Your task to perform on an android device: turn off smart reply in the gmail app Image 0: 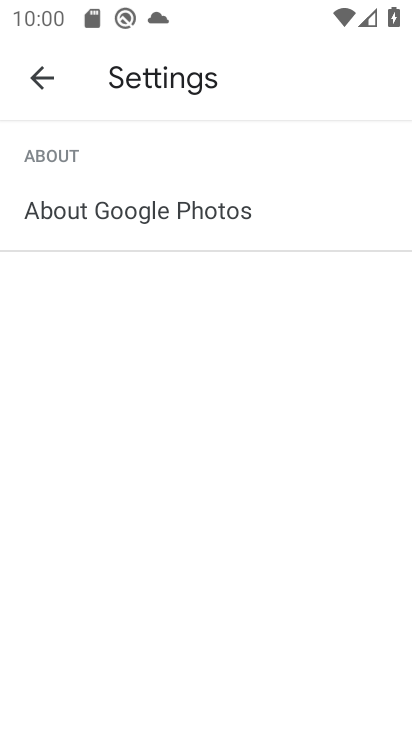
Step 0: press home button
Your task to perform on an android device: turn off smart reply in the gmail app Image 1: 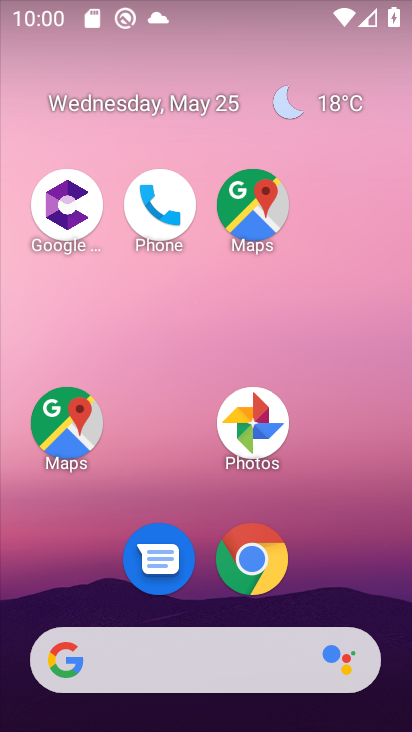
Step 1: drag from (328, 579) to (298, 36)
Your task to perform on an android device: turn off smart reply in the gmail app Image 2: 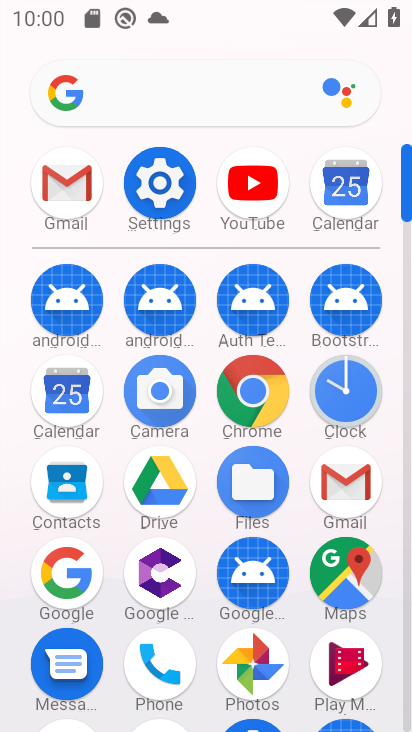
Step 2: click (298, 36)
Your task to perform on an android device: turn off smart reply in the gmail app Image 3: 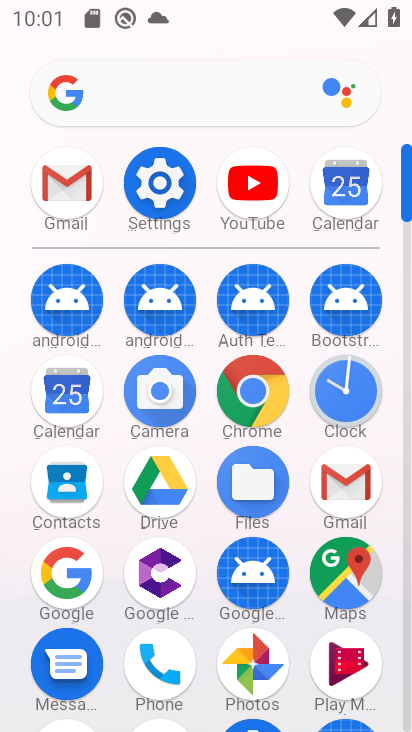
Step 3: click (358, 479)
Your task to perform on an android device: turn off smart reply in the gmail app Image 4: 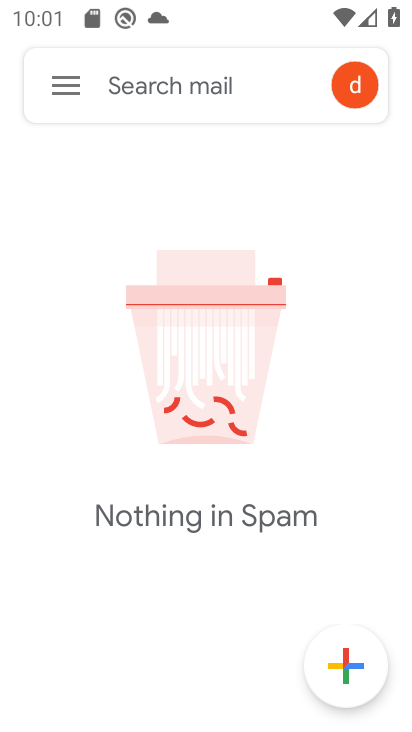
Step 4: click (78, 97)
Your task to perform on an android device: turn off smart reply in the gmail app Image 5: 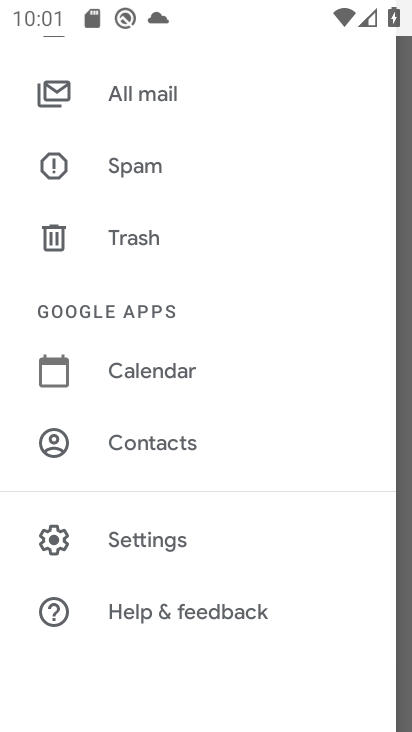
Step 5: click (184, 530)
Your task to perform on an android device: turn off smart reply in the gmail app Image 6: 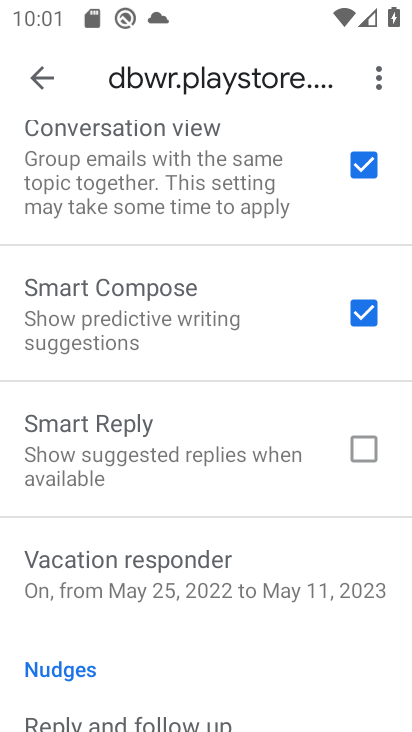
Step 6: task complete